Your task to perform on an android device: set an alarm Image 0: 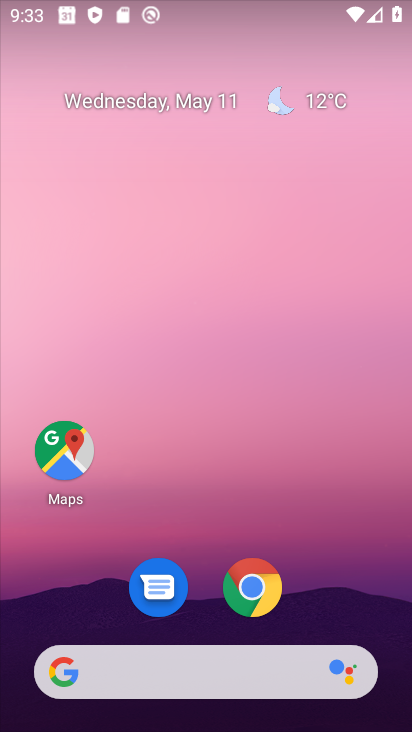
Step 0: drag from (360, 544) to (380, 14)
Your task to perform on an android device: set an alarm Image 1: 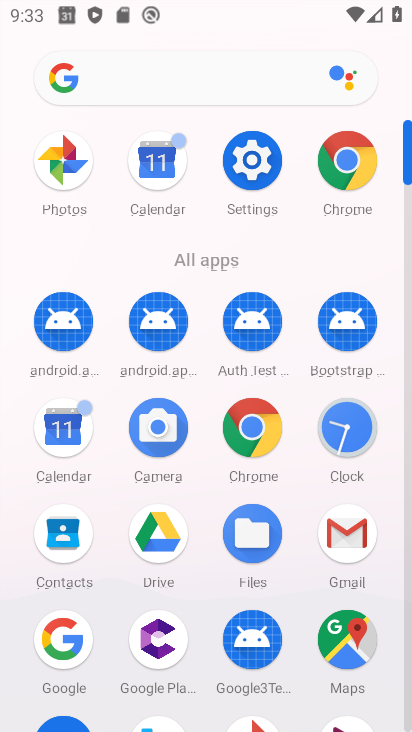
Step 1: click (340, 435)
Your task to perform on an android device: set an alarm Image 2: 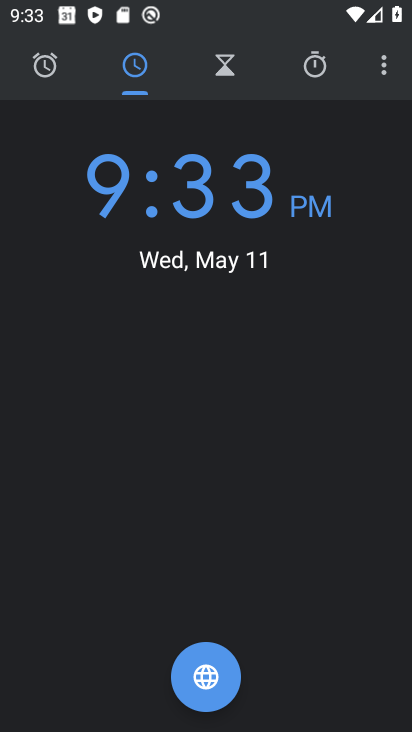
Step 2: click (58, 75)
Your task to perform on an android device: set an alarm Image 3: 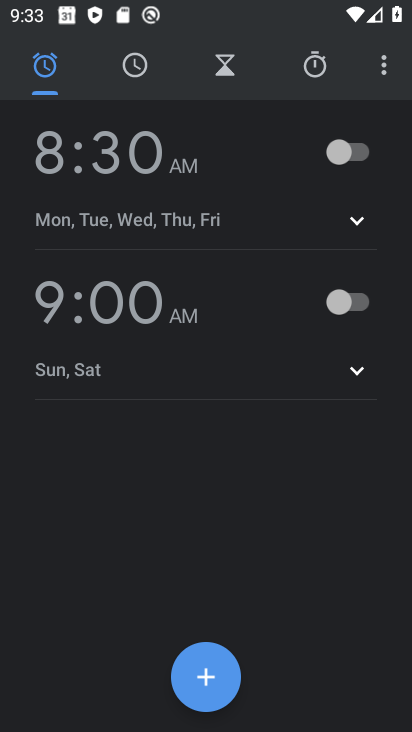
Step 3: click (194, 664)
Your task to perform on an android device: set an alarm Image 4: 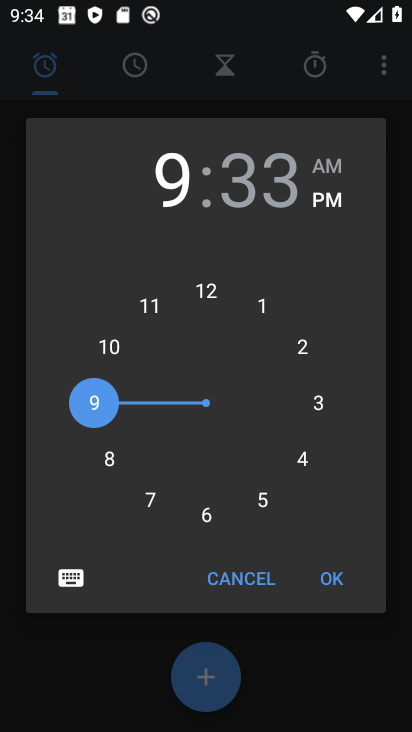
Step 4: click (201, 517)
Your task to perform on an android device: set an alarm Image 5: 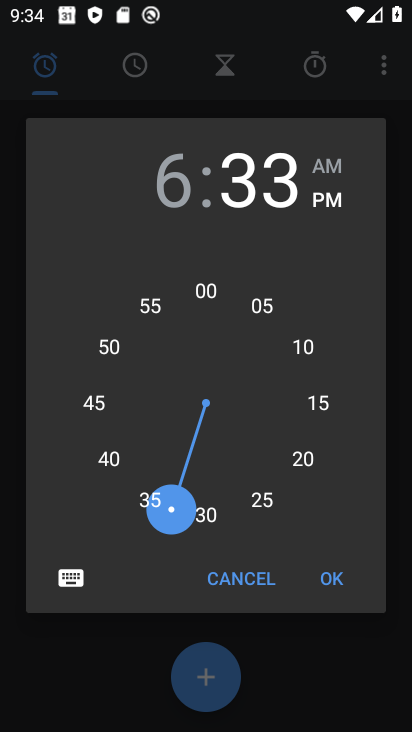
Step 5: click (211, 297)
Your task to perform on an android device: set an alarm Image 6: 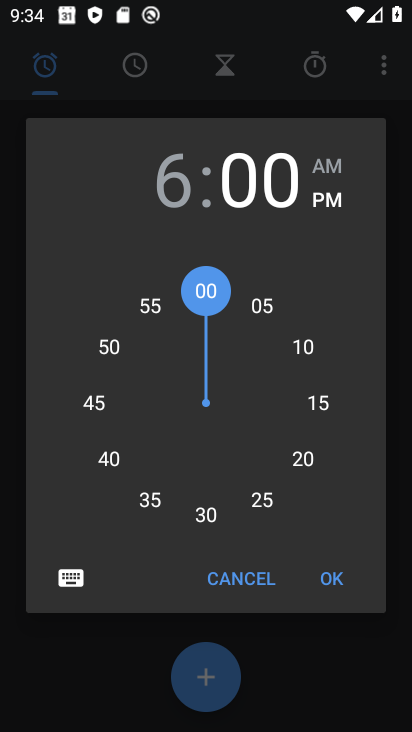
Step 6: click (333, 171)
Your task to perform on an android device: set an alarm Image 7: 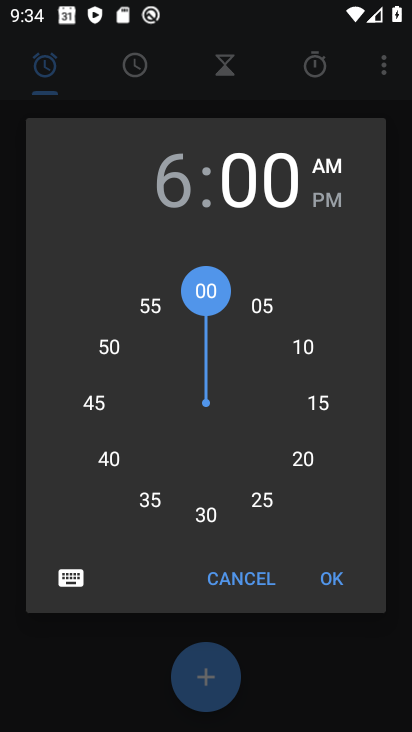
Step 7: click (335, 584)
Your task to perform on an android device: set an alarm Image 8: 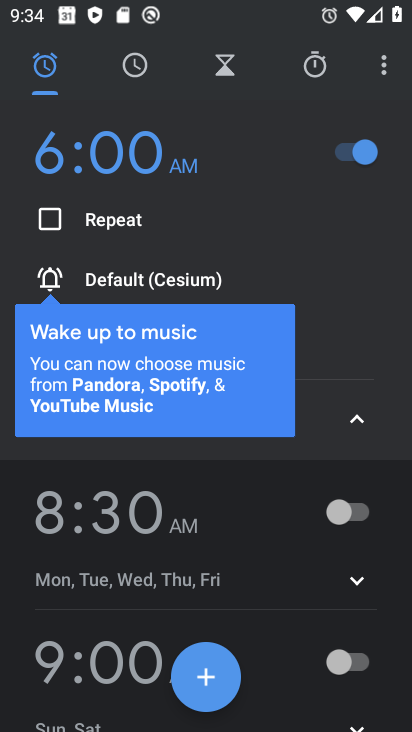
Step 8: task complete